Your task to perform on an android device: all mails in gmail Image 0: 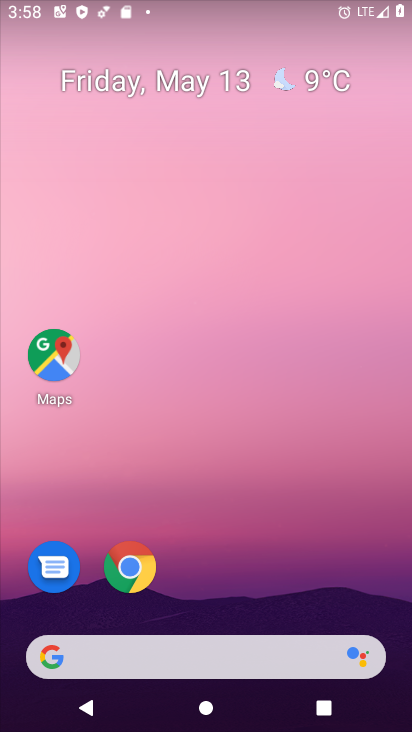
Step 0: drag from (269, 606) to (306, 24)
Your task to perform on an android device: all mails in gmail Image 1: 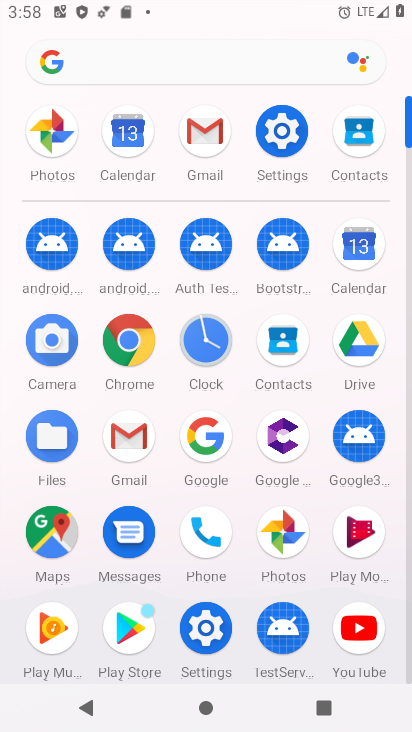
Step 1: click (204, 134)
Your task to perform on an android device: all mails in gmail Image 2: 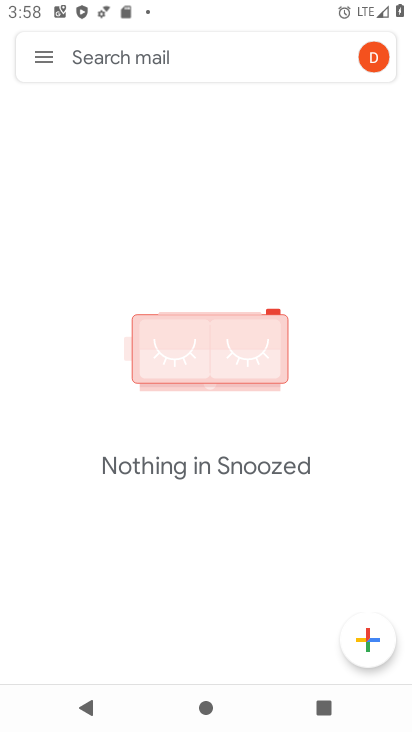
Step 2: click (35, 50)
Your task to perform on an android device: all mails in gmail Image 3: 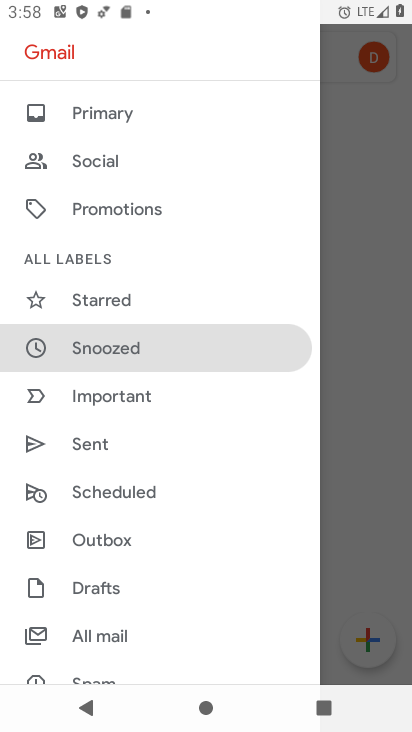
Step 3: click (108, 634)
Your task to perform on an android device: all mails in gmail Image 4: 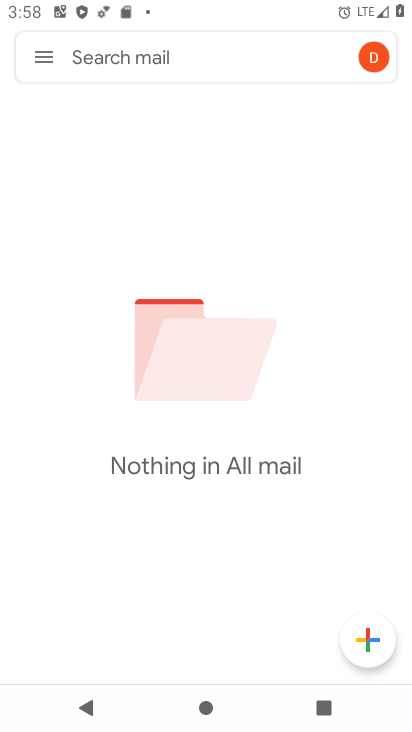
Step 4: task complete